Your task to perform on an android device: toggle wifi Image 0: 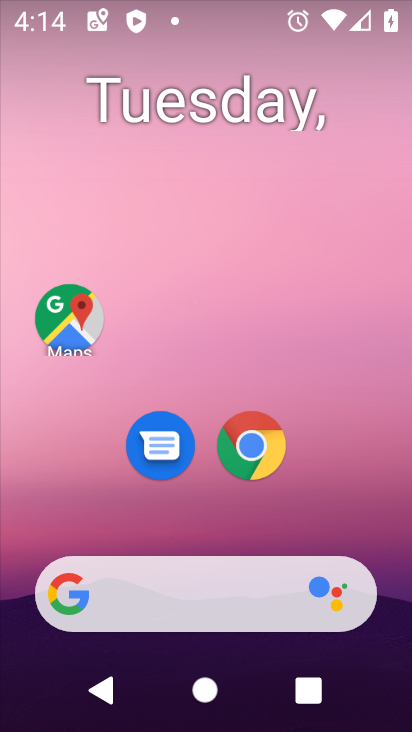
Step 0: drag from (372, 15) to (259, 211)
Your task to perform on an android device: toggle wifi Image 1: 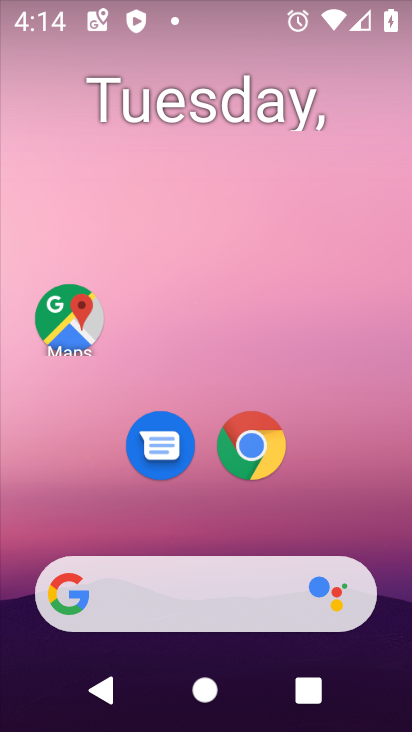
Step 1: drag from (299, 12) to (322, 151)
Your task to perform on an android device: toggle wifi Image 2: 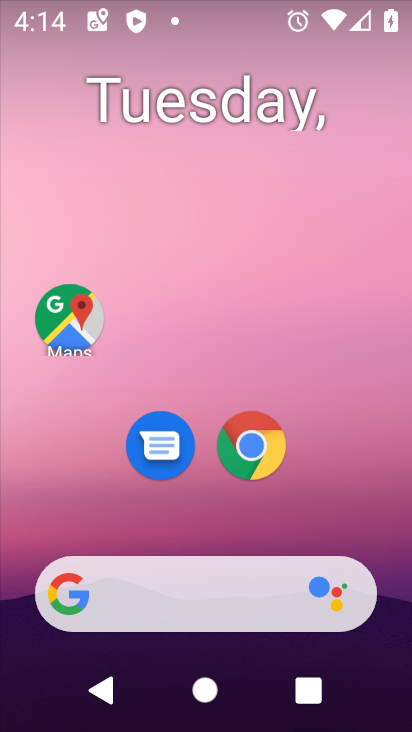
Step 2: drag from (300, 6) to (210, 518)
Your task to perform on an android device: toggle wifi Image 3: 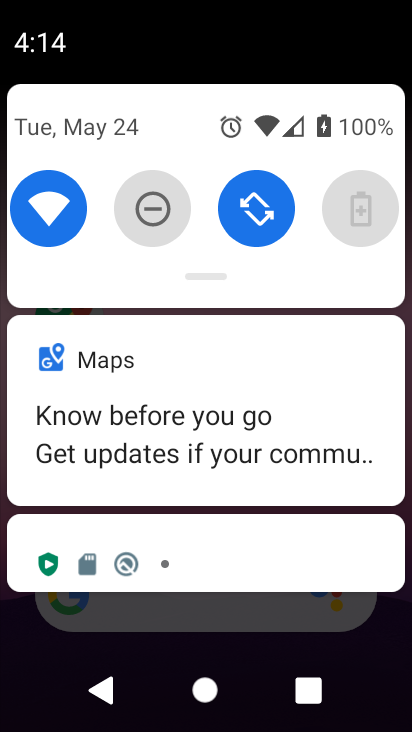
Step 3: click (61, 199)
Your task to perform on an android device: toggle wifi Image 4: 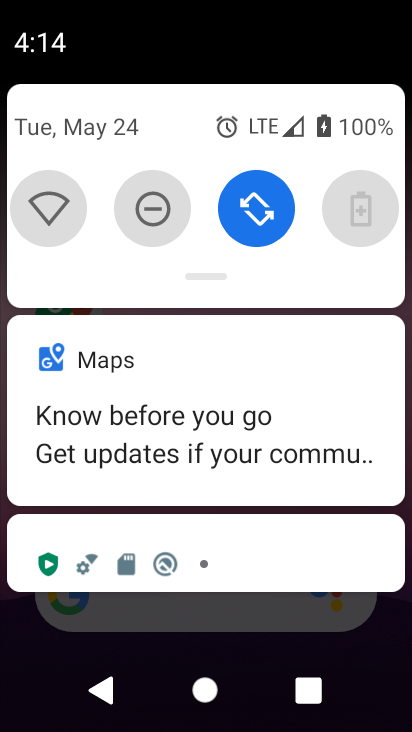
Step 4: task complete